Your task to perform on an android device: Open Google Maps Image 0: 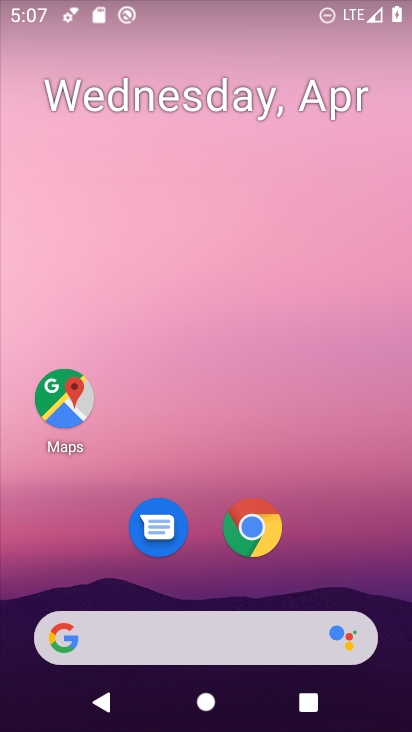
Step 0: click (64, 409)
Your task to perform on an android device: Open Google Maps Image 1: 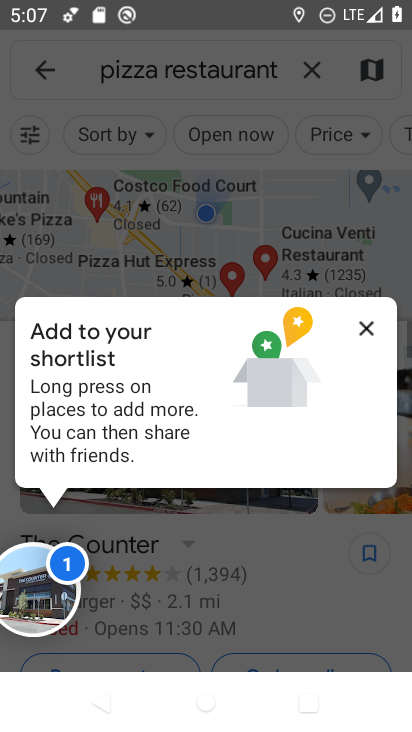
Step 1: click (359, 332)
Your task to perform on an android device: Open Google Maps Image 2: 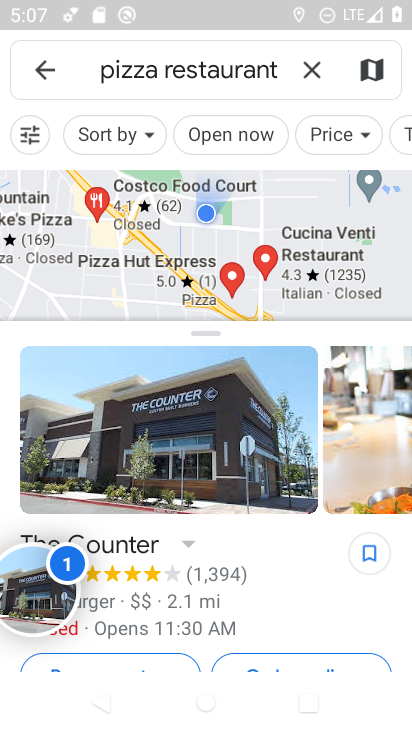
Step 2: task complete